Your task to perform on an android device: Open calendar and show me the first week of next month Image 0: 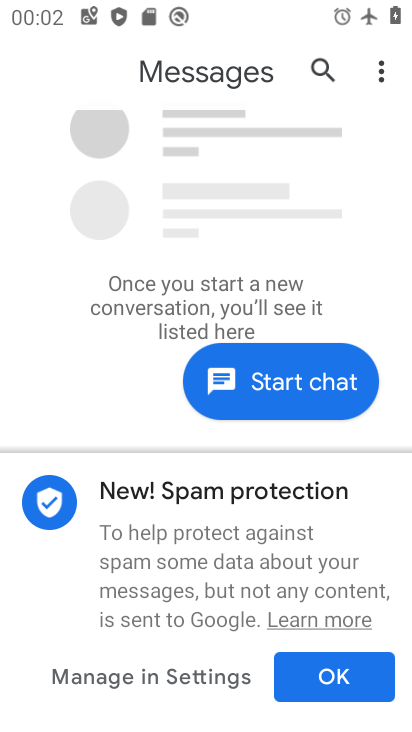
Step 0: press home button
Your task to perform on an android device: Open calendar and show me the first week of next month Image 1: 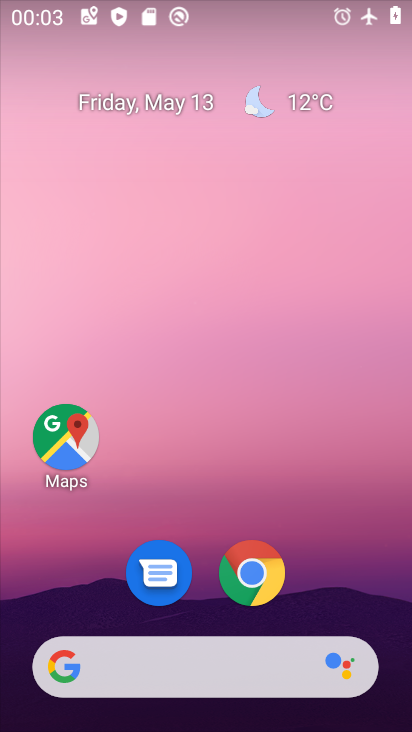
Step 1: drag from (228, 442) to (389, 93)
Your task to perform on an android device: Open calendar and show me the first week of next month Image 2: 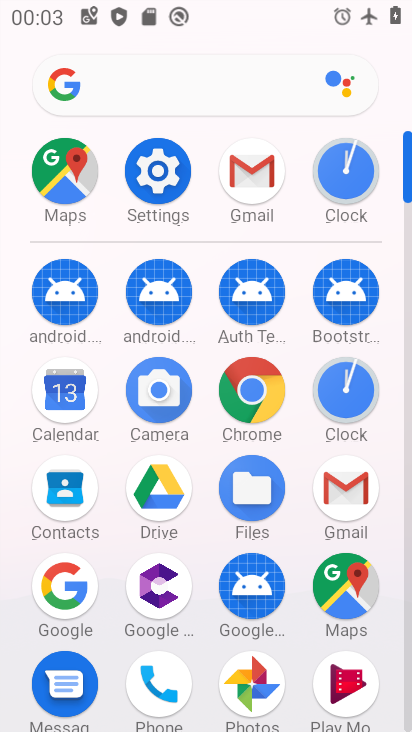
Step 2: click (49, 397)
Your task to perform on an android device: Open calendar and show me the first week of next month Image 3: 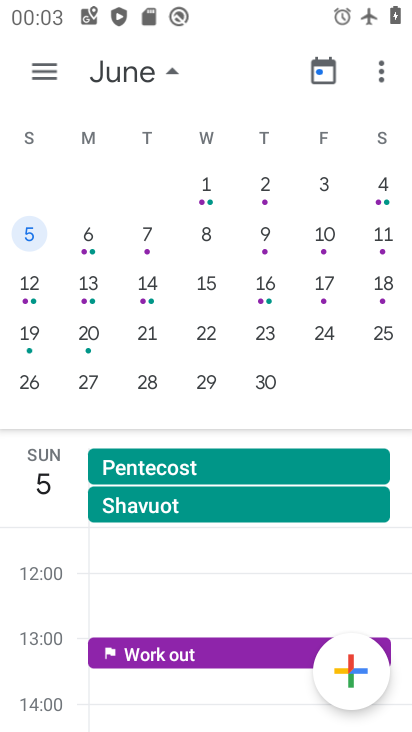
Step 3: click (214, 184)
Your task to perform on an android device: Open calendar and show me the first week of next month Image 4: 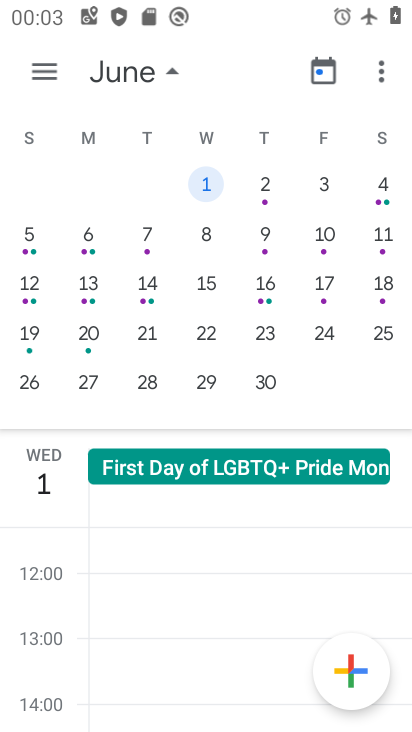
Step 4: task complete